Your task to perform on an android device: show emergency info Image 0: 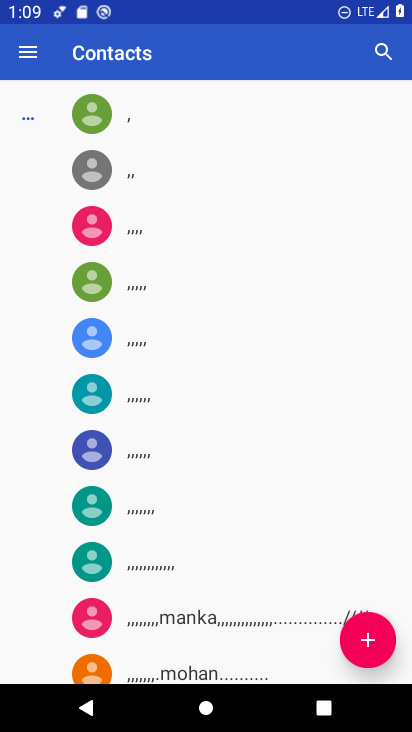
Step 0: press home button
Your task to perform on an android device: show emergency info Image 1: 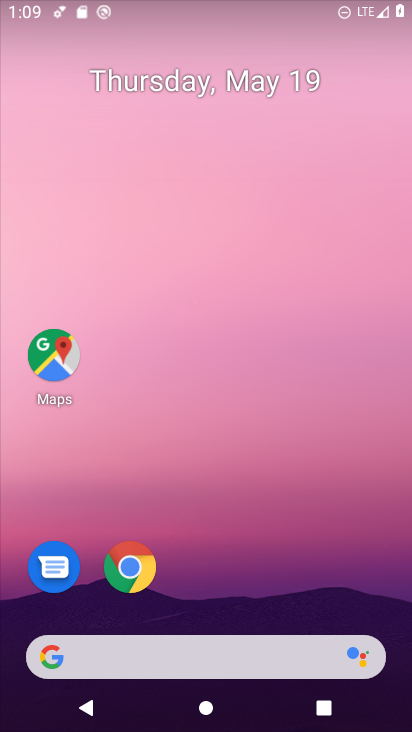
Step 1: drag from (246, 541) to (183, 43)
Your task to perform on an android device: show emergency info Image 2: 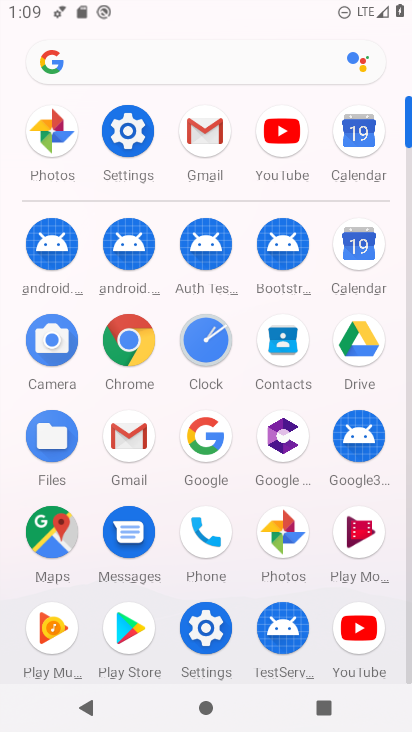
Step 2: click (126, 133)
Your task to perform on an android device: show emergency info Image 3: 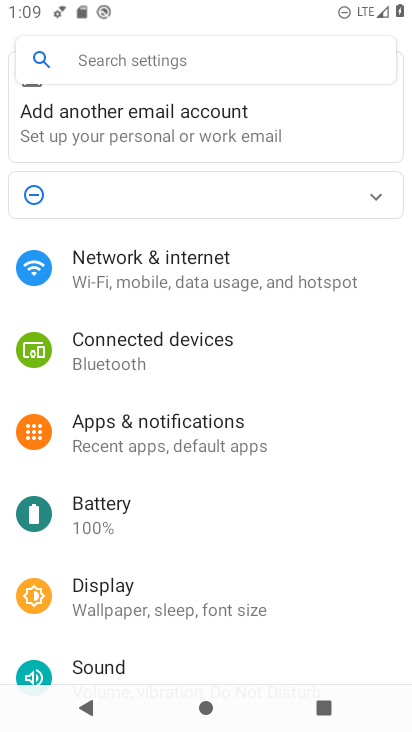
Step 3: drag from (233, 543) to (214, 172)
Your task to perform on an android device: show emergency info Image 4: 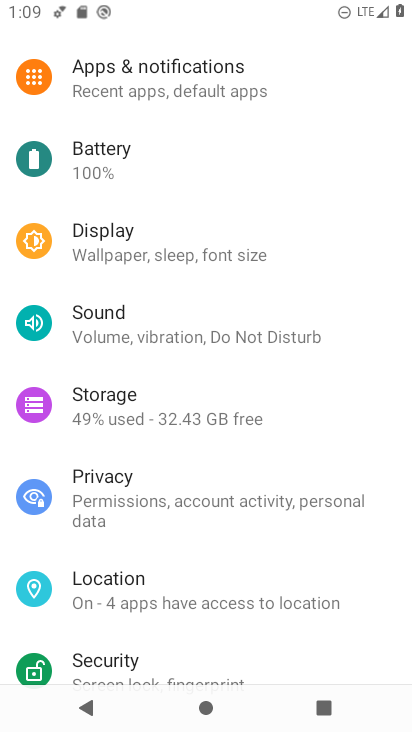
Step 4: drag from (260, 587) to (277, 7)
Your task to perform on an android device: show emergency info Image 5: 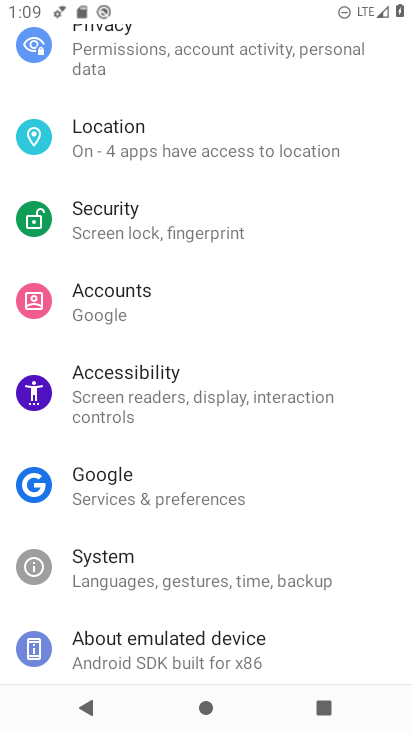
Step 5: click (226, 650)
Your task to perform on an android device: show emergency info Image 6: 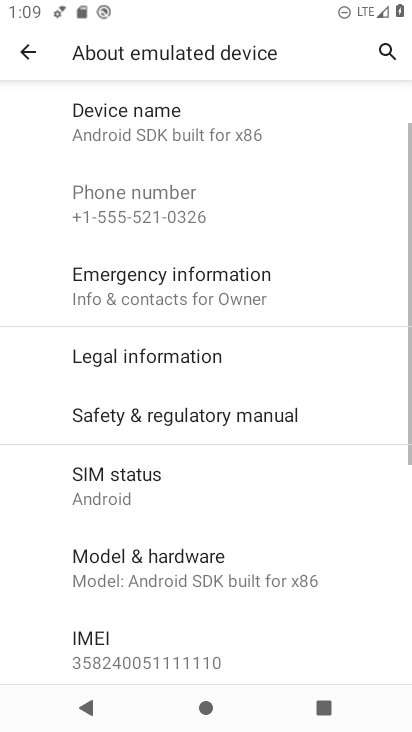
Step 6: click (237, 279)
Your task to perform on an android device: show emergency info Image 7: 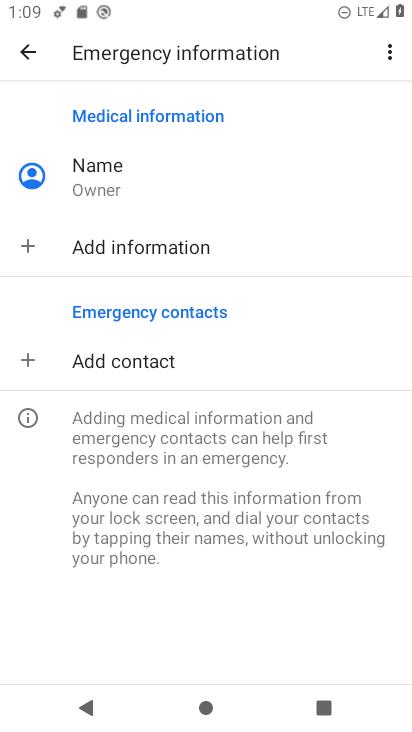
Step 7: task complete